Your task to perform on an android device: set default search engine in the chrome app Image 0: 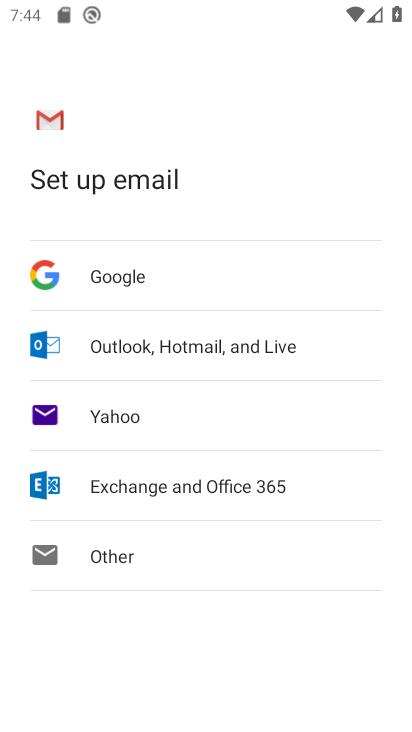
Step 0: press home button
Your task to perform on an android device: set default search engine in the chrome app Image 1: 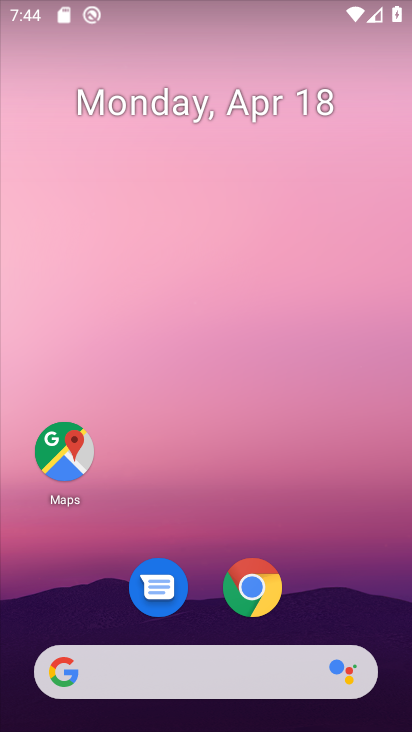
Step 1: click (250, 597)
Your task to perform on an android device: set default search engine in the chrome app Image 2: 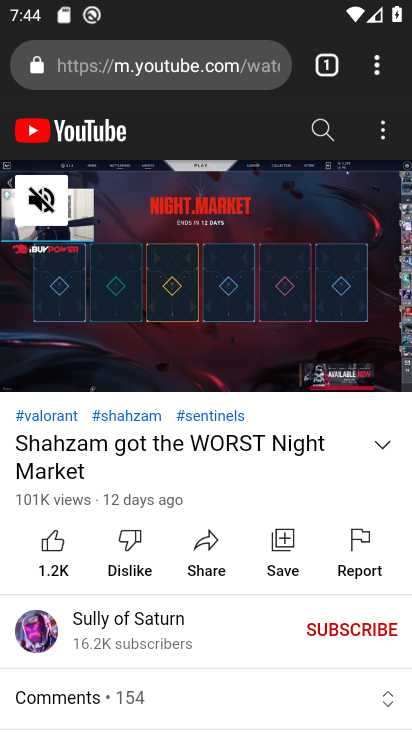
Step 2: press home button
Your task to perform on an android device: set default search engine in the chrome app Image 3: 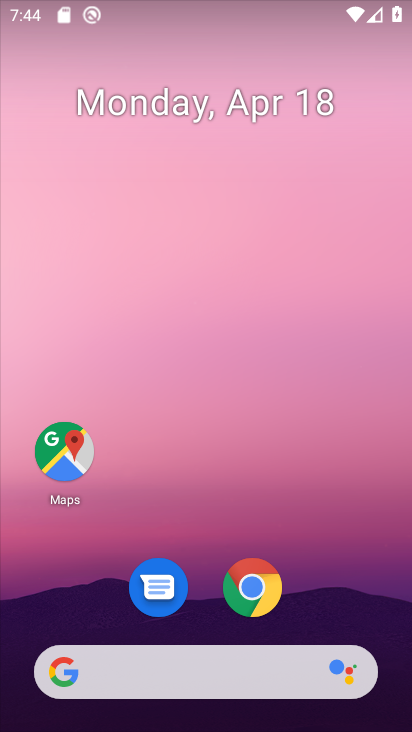
Step 3: click (248, 613)
Your task to perform on an android device: set default search engine in the chrome app Image 4: 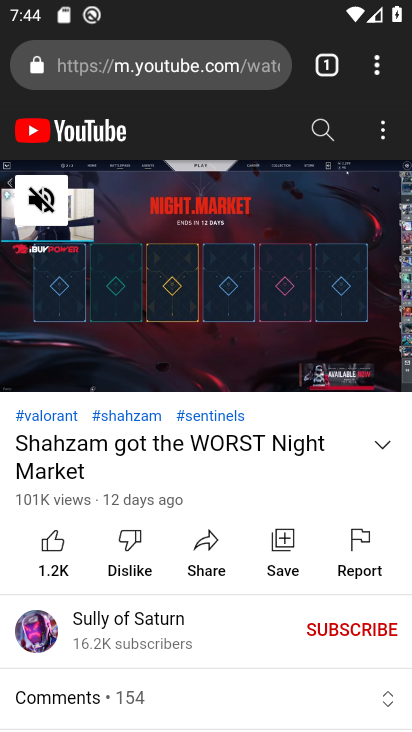
Step 4: click (323, 72)
Your task to perform on an android device: set default search engine in the chrome app Image 5: 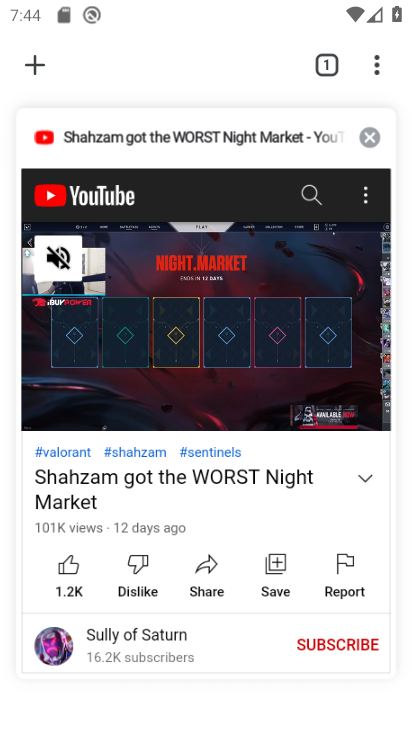
Step 5: click (377, 63)
Your task to perform on an android device: set default search engine in the chrome app Image 6: 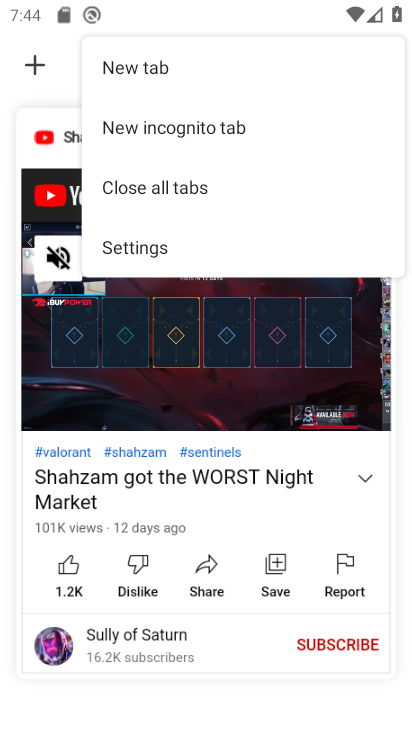
Step 6: click (118, 255)
Your task to perform on an android device: set default search engine in the chrome app Image 7: 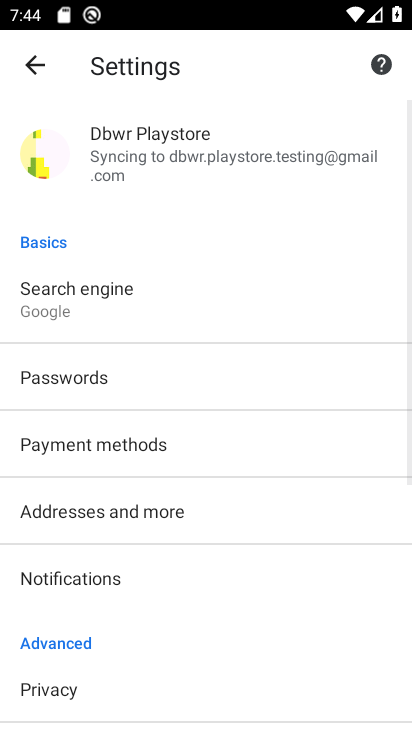
Step 7: click (49, 295)
Your task to perform on an android device: set default search engine in the chrome app Image 8: 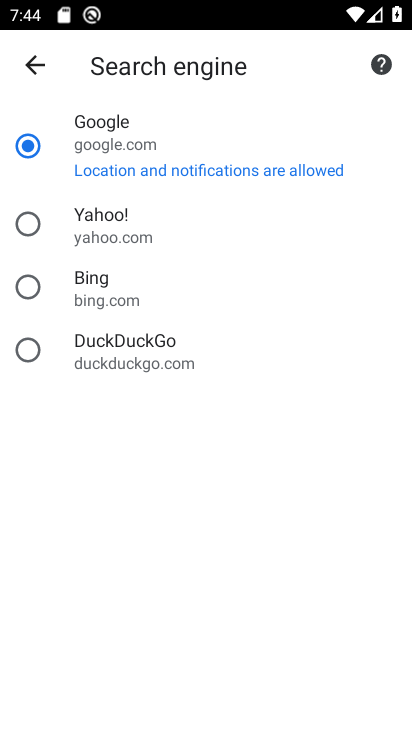
Step 8: click (49, 295)
Your task to perform on an android device: set default search engine in the chrome app Image 9: 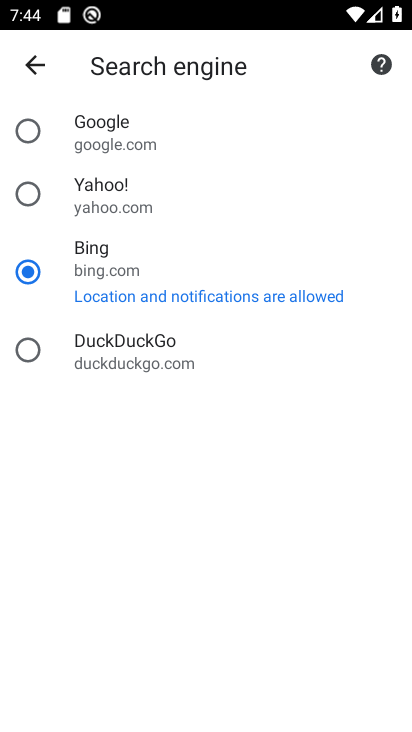
Step 9: task complete